Your task to perform on an android device: What is the news today? Image 0: 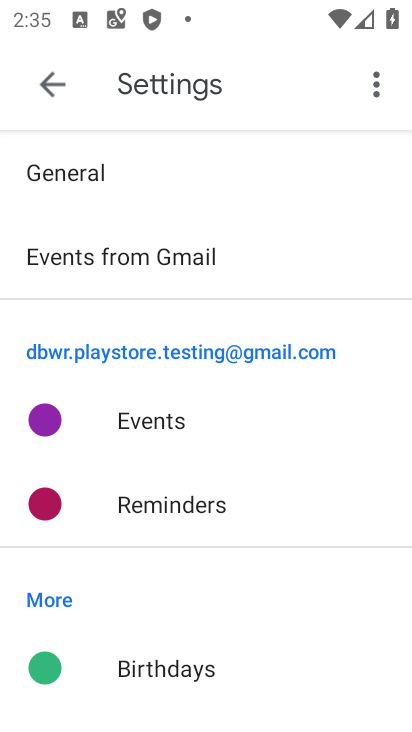
Step 0: press home button
Your task to perform on an android device: What is the news today? Image 1: 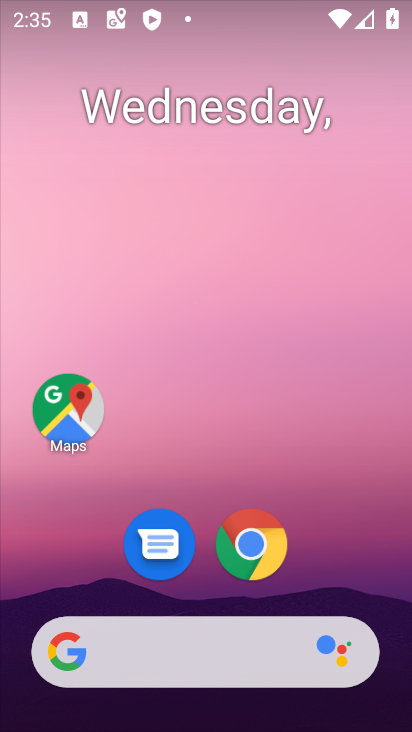
Step 1: task complete